Your task to perform on an android device: Open calendar and show me the third week of next month Image 0: 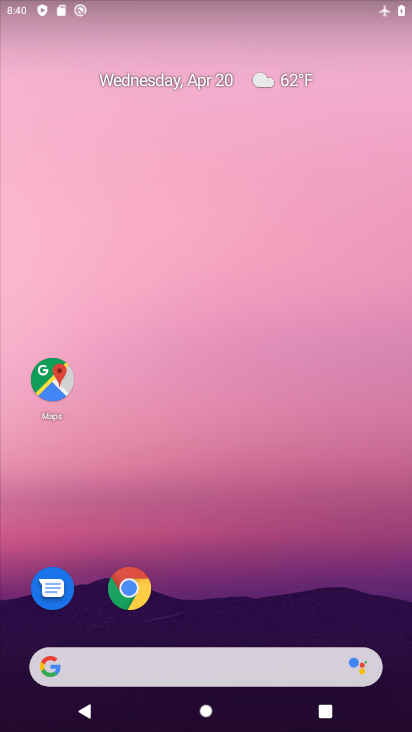
Step 0: drag from (261, 578) to (102, 18)
Your task to perform on an android device: Open calendar and show me the third week of next month Image 1: 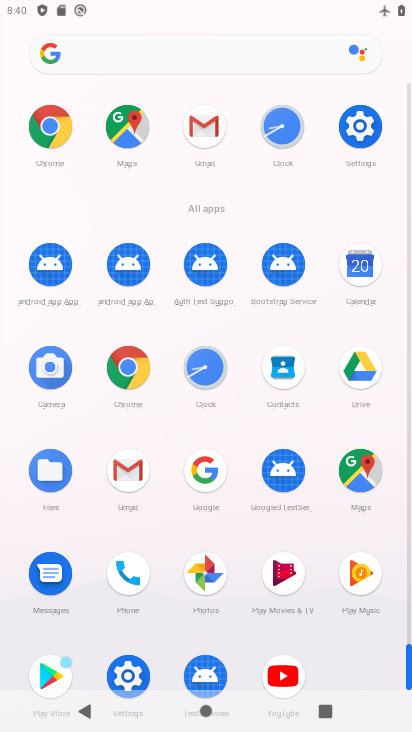
Step 1: drag from (18, 509) to (5, 259)
Your task to perform on an android device: Open calendar and show me the third week of next month Image 2: 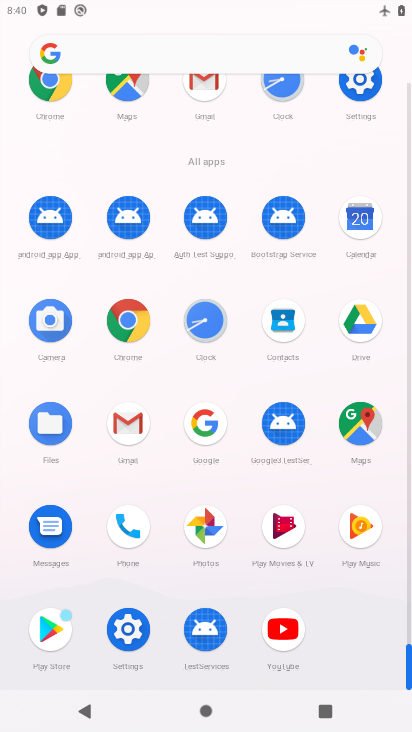
Step 2: click (357, 217)
Your task to perform on an android device: Open calendar and show me the third week of next month Image 3: 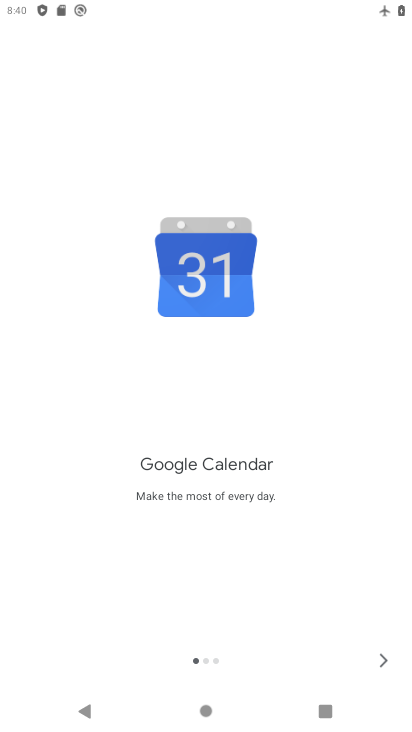
Step 3: click (385, 656)
Your task to perform on an android device: Open calendar and show me the third week of next month Image 4: 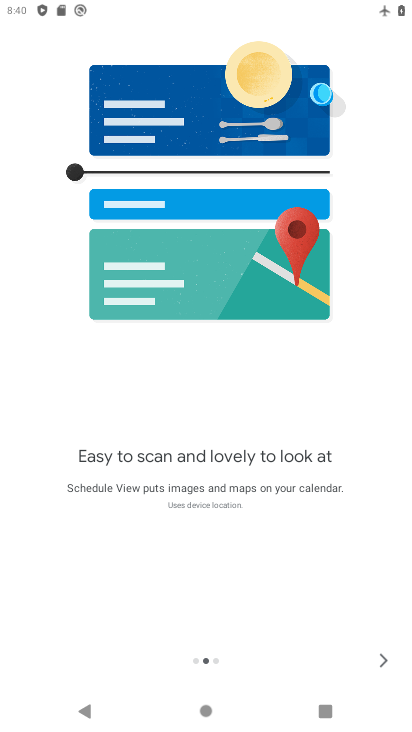
Step 4: click (385, 656)
Your task to perform on an android device: Open calendar and show me the third week of next month Image 5: 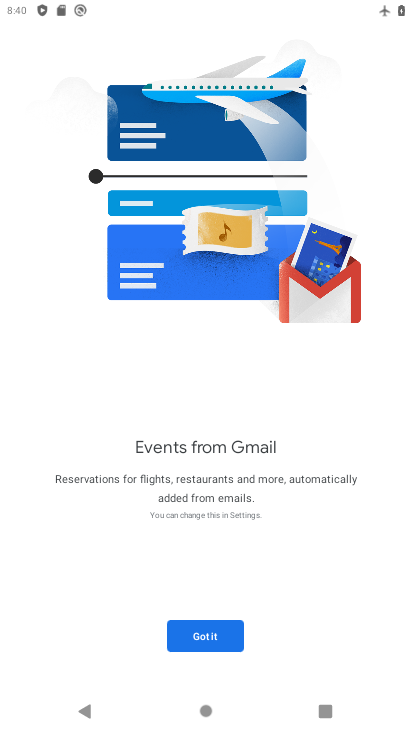
Step 5: click (227, 638)
Your task to perform on an android device: Open calendar and show me the third week of next month Image 6: 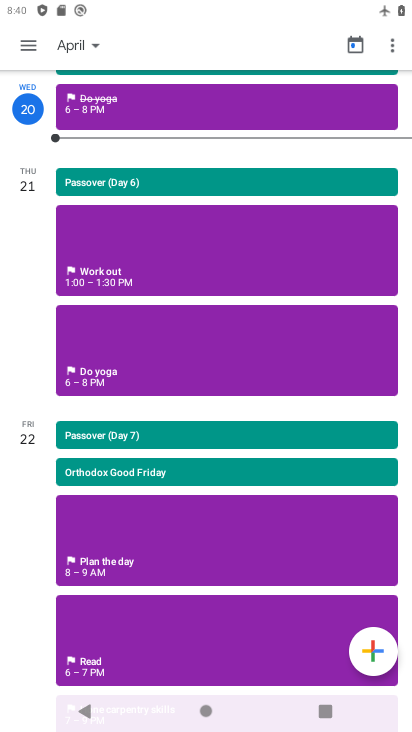
Step 6: click (48, 43)
Your task to perform on an android device: Open calendar and show me the third week of next month Image 7: 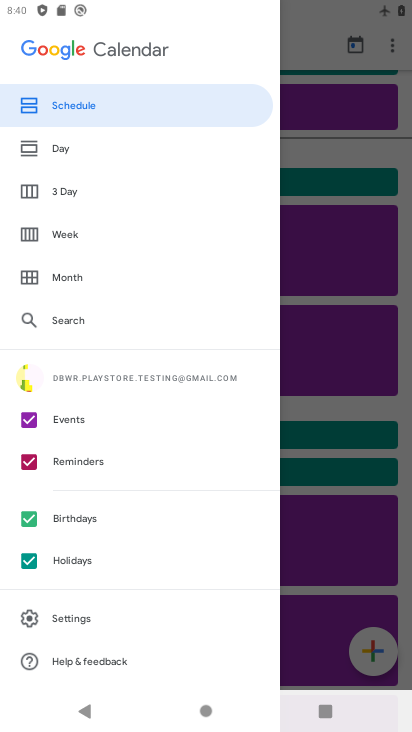
Step 7: click (81, 279)
Your task to perform on an android device: Open calendar and show me the third week of next month Image 8: 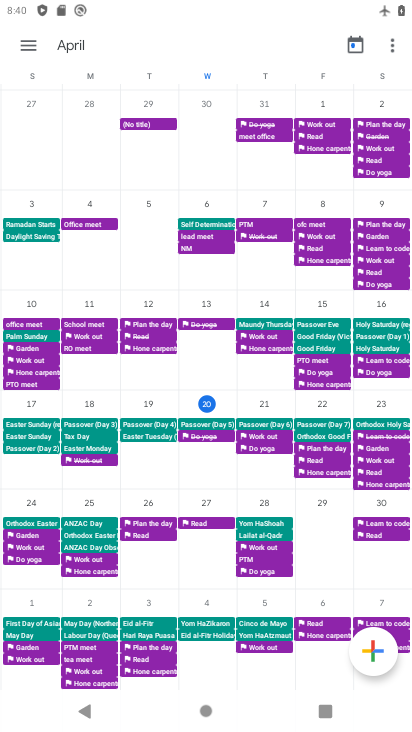
Step 8: drag from (402, 386) to (0, 128)
Your task to perform on an android device: Open calendar and show me the third week of next month Image 9: 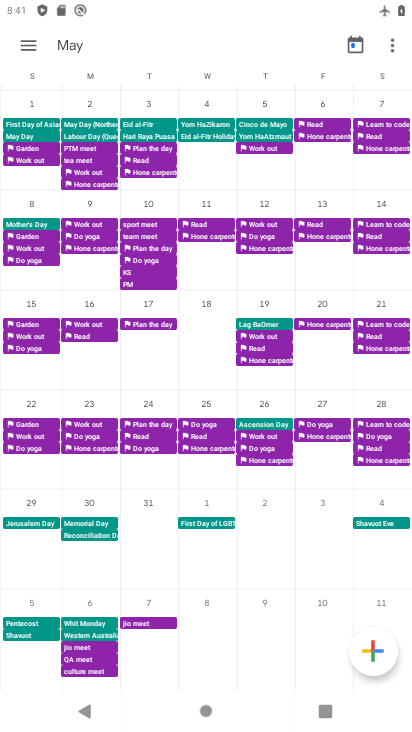
Step 9: click (62, 48)
Your task to perform on an android device: Open calendar and show me the third week of next month Image 10: 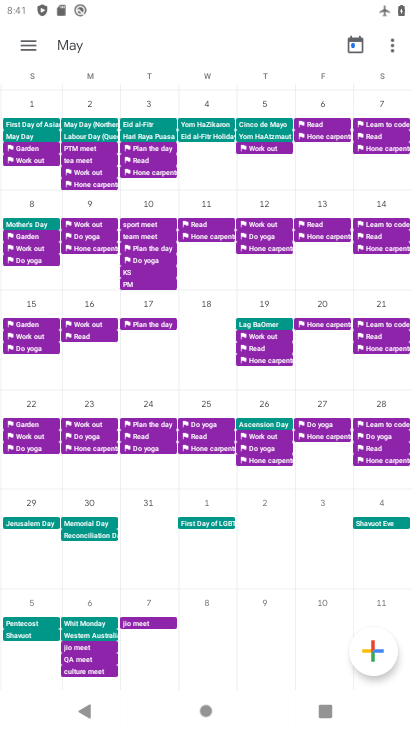
Step 10: click (67, 43)
Your task to perform on an android device: Open calendar and show me the third week of next month Image 11: 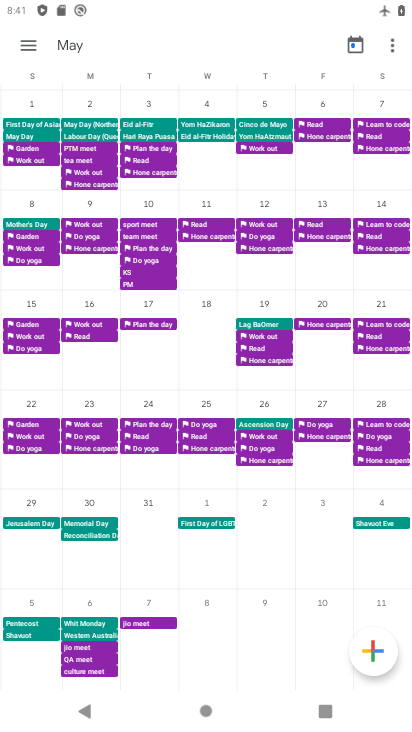
Step 11: click (20, 314)
Your task to perform on an android device: Open calendar and show me the third week of next month Image 12: 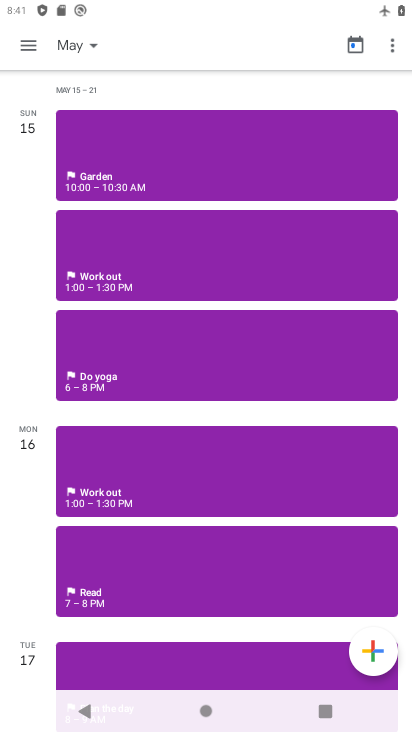
Step 12: click (20, 48)
Your task to perform on an android device: Open calendar and show me the third week of next month Image 13: 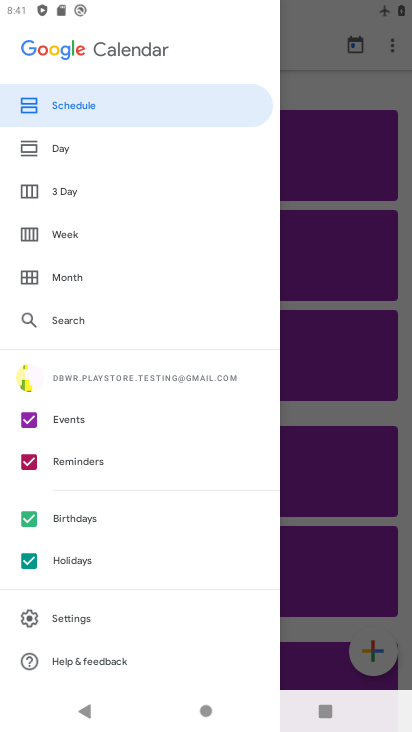
Step 13: click (77, 240)
Your task to perform on an android device: Open calendar and show me the third week of next month Image 14: 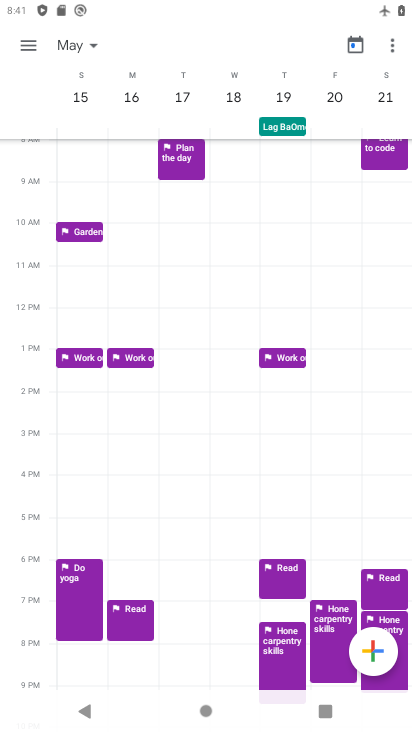
Step 14: task complete